Your task to perform on an android device: turn on showing notifications on the lock screen Image 0: 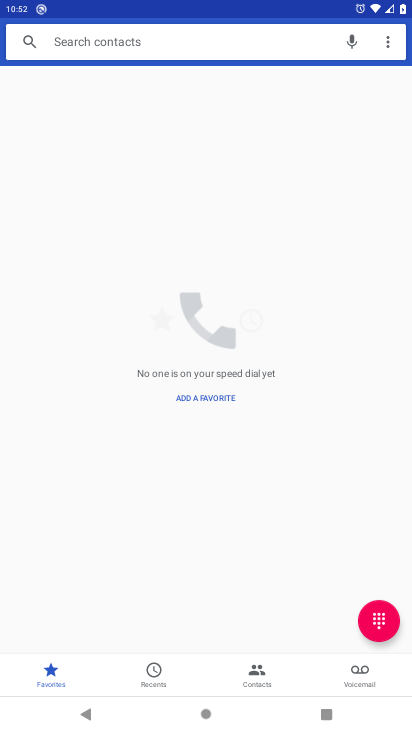
Step 0: press home button
Your task to perform on an android device: turn on showing notifications on the lock screen Image 1: 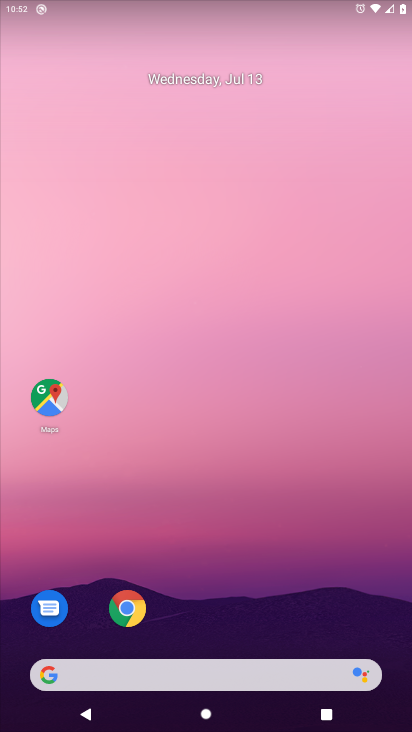
Step 1: drag from (39, 706) to (281, 49)
Your task to perform on an android device: turn on showing notifications on the lock screen Image 2: 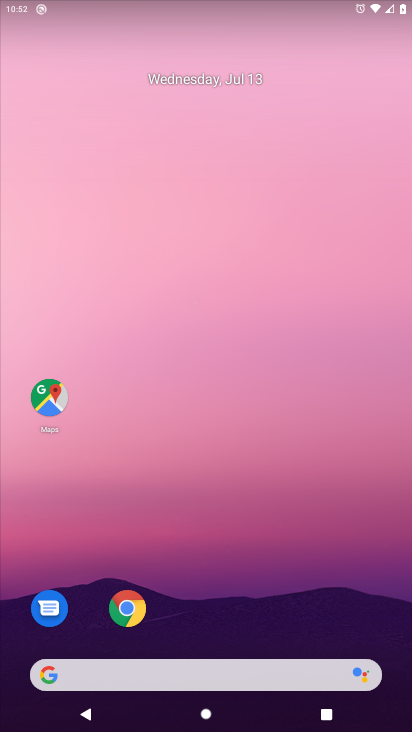
Step 2: drag from (25, 697) to (222, 155)
Your task to perform on an android device: turn on showing notifications on the lock screen Image 3: 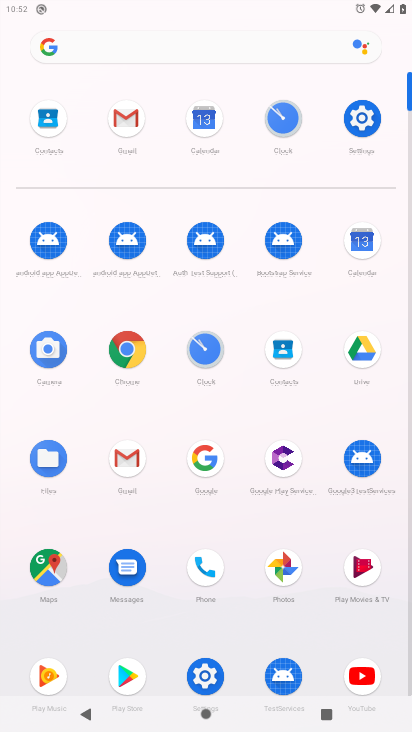
Step 3: click (203, 676)
Your task to perform on an android device: turn on showing notifications on the lock screen Image 4: 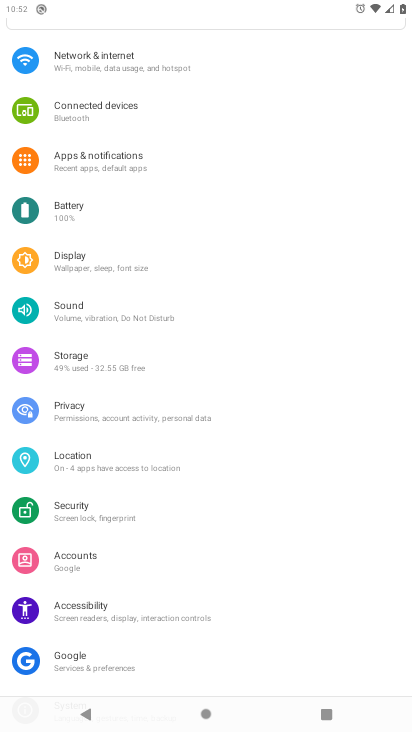
Step 4: click (121, 162)
Your task to perform on an android device: turn on showing notifications on the lock screen Image 5: 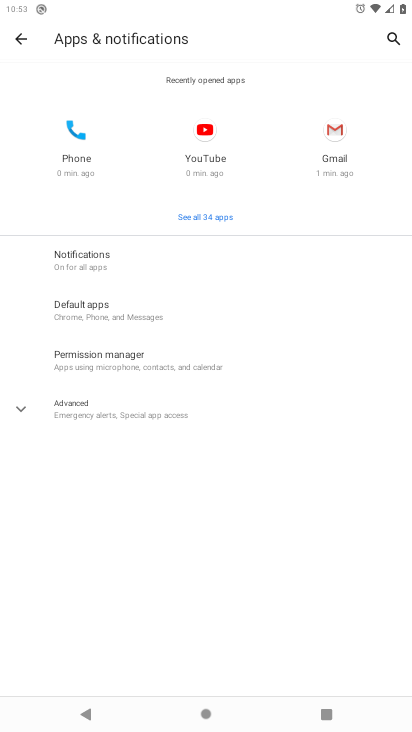
Step 5: click (103, 404)
Your task to perform on an android device: turn on showing notifications on the lock screen Image 6: 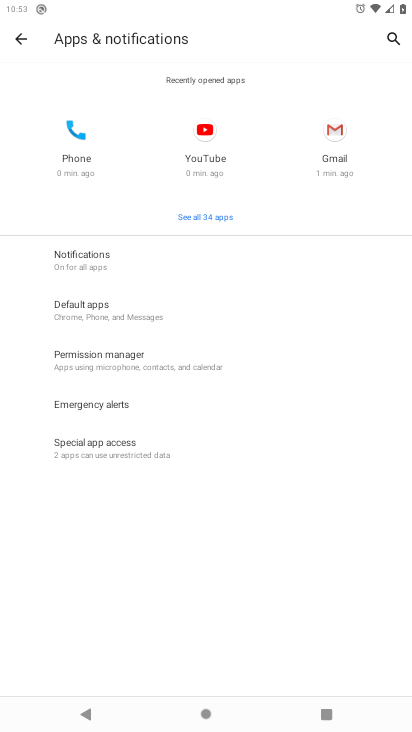
Step 6: click (110, 257)
Your task to perform on an android device: turn on showing notifications on the lock screen Image 7: 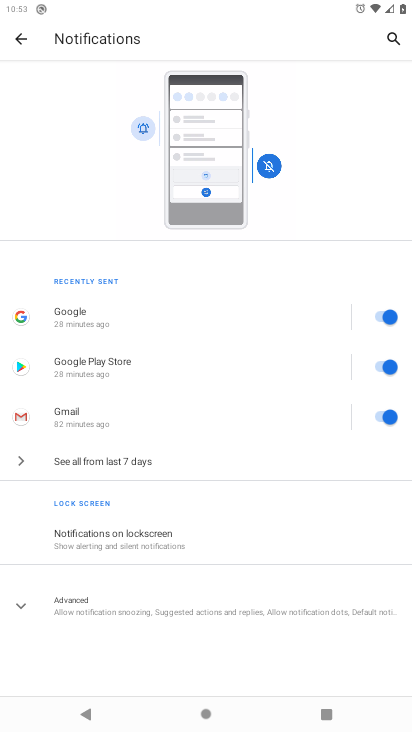
Step 7: click (150, 548)
Your task to perform on an android device: turn on showing notifications on the lock screen Image 8: 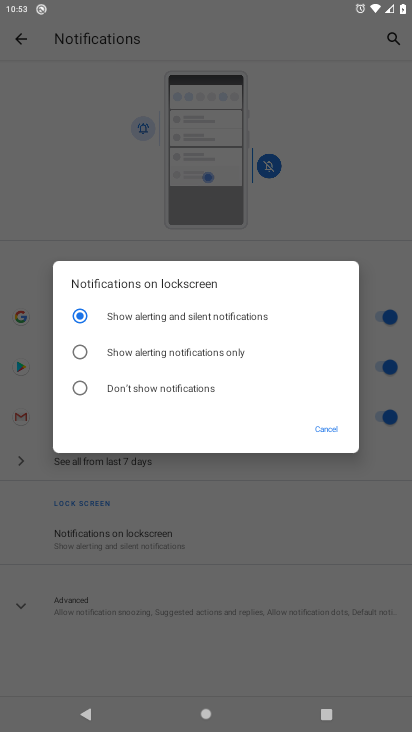
Step 8: click (170, 345)
Your task to perform on an android device: turn on showing notifications on the lock screen Image 9: 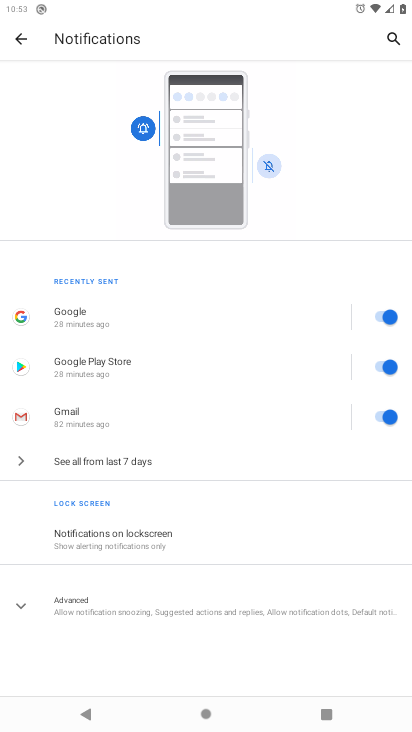
Step 9: task complete